Your task to perform on an android device: Search for Italian restaurants on Maps Image 0: 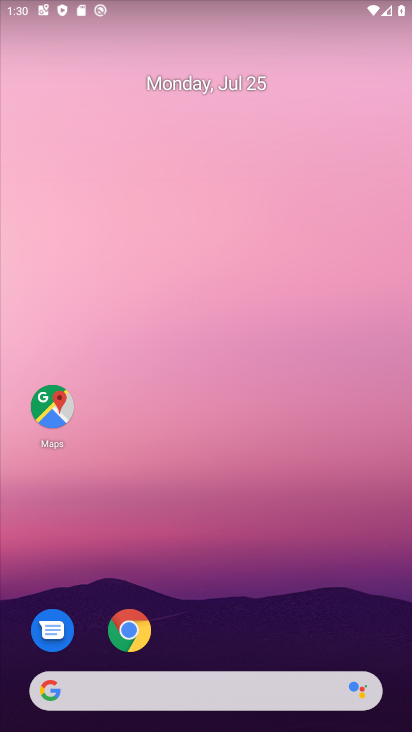
Step 0: press home button
Your task to perform on an android device: Search for Italian restaurants on Maps Image 1: 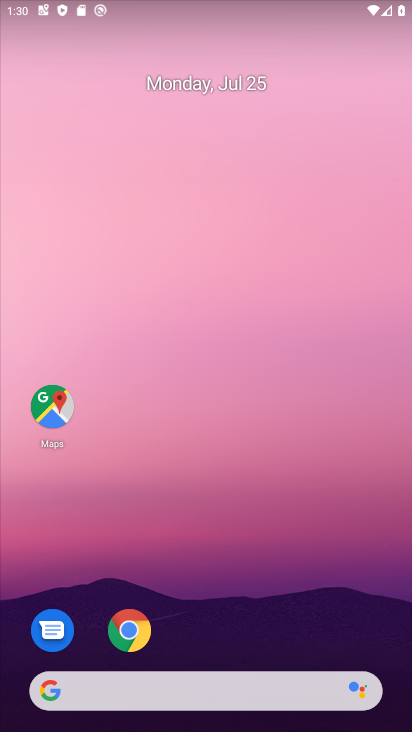
Step 1: click (53, 433)
Your task to perform on an android device: Search for Italian restaurants on Maps Image 2: 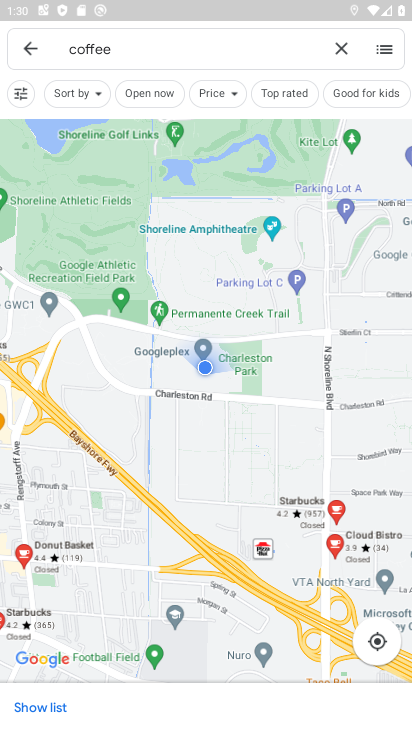
Step 2: click (333, 50)
Your task to perform on an android device: Search for Italian restaurants on Maps Image 3: 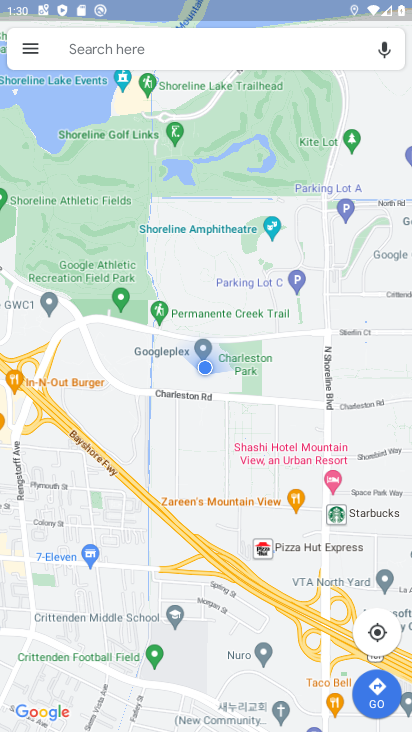
Step 3: click (211, 53)
Your task to perform on an android device: Search for Italian restaurants on Maps Image 4: 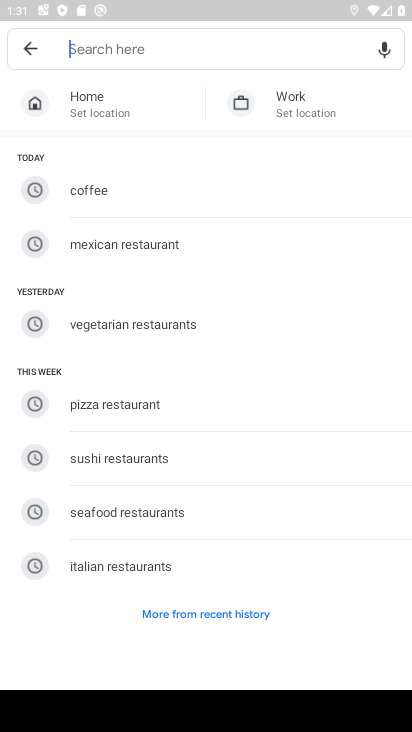
Step 4: click (157, 565)
Your task to perform on an android device: Search for Italian restaurants on Maps Image 5: 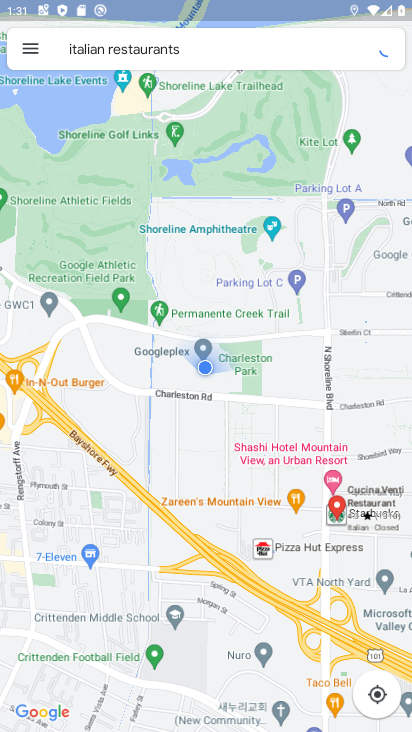
Step 5: task complete